Your task to perform on an android device: check out phone information Image 0: 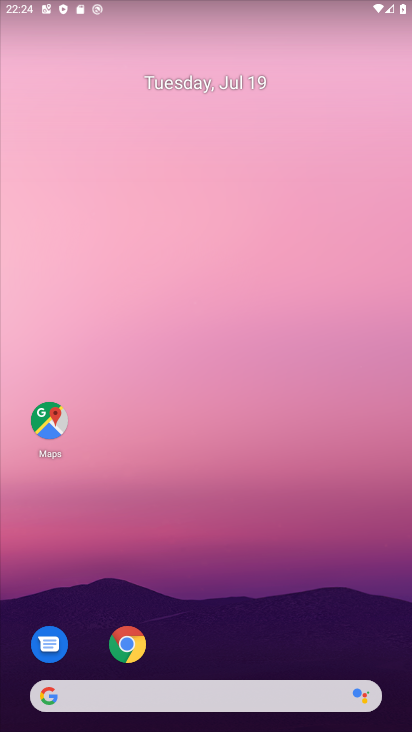
Step 0: drag from (192, 301) to (187, 199)
Your task to perform on an android device: check out phone information Image 1: 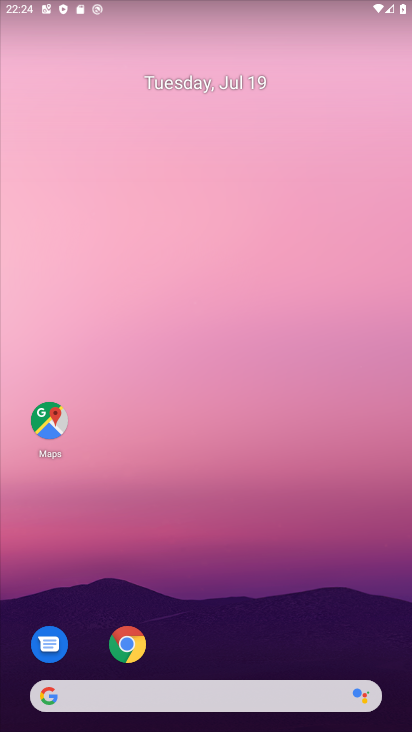
Step 1: drag from (218, 727) to (184, 241)
Your task to perform on an android device: check out phone information Image 2: 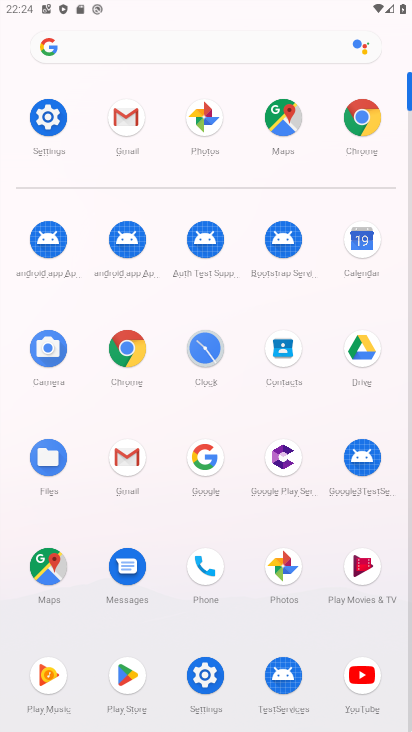
Step 2: click (46, 120)
Your task to perform on an android device: check out phone information Image 3: 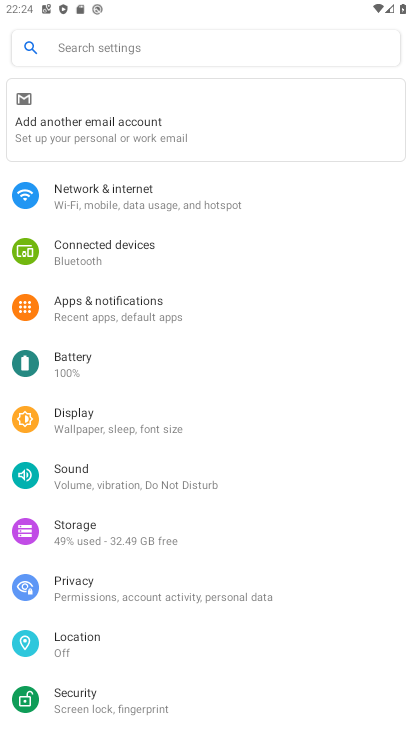
Step 3: drag from (158, 698) to (147, 416)
Your task to perform on an android device: check out phone information Image 4: 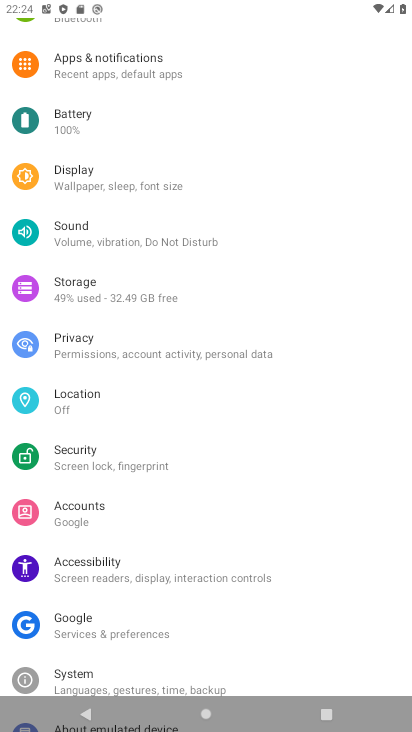
Step 4: drag from (145, 651) to (125, 375)
Your task to perform on an android device: check out phone information Image 5: 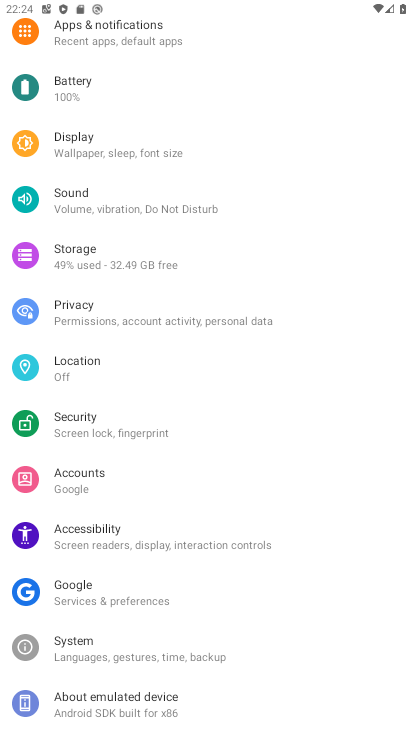
Step 5: click (98, 705)
Your task to perform on an android device: check out phone information Image 6: 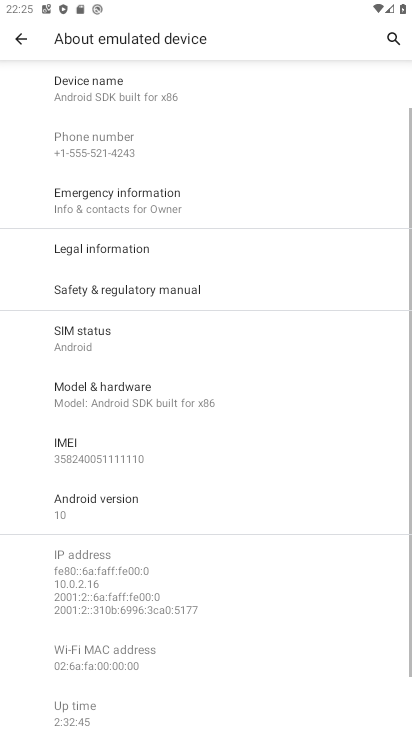
Step 6: task complete